Your task to perform on an android device: change notification settings in the gmail app Image 0: 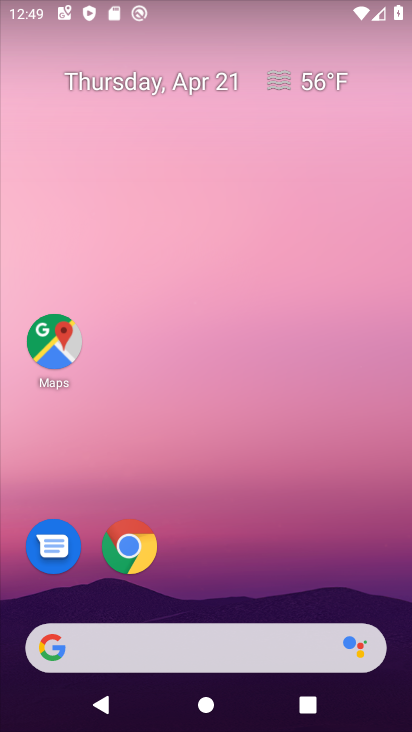
Step 0: drag from (221, 646) to (299, 234)
Your task to perform on an android device: change notification settings in the gmail app Image 1: 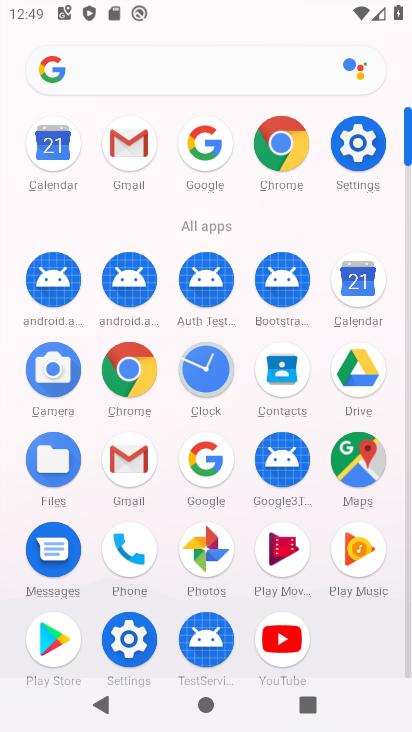
Step 1: click (128, 150)
Your task to perform on an android device: change notification settings in the gmail app Image 2: 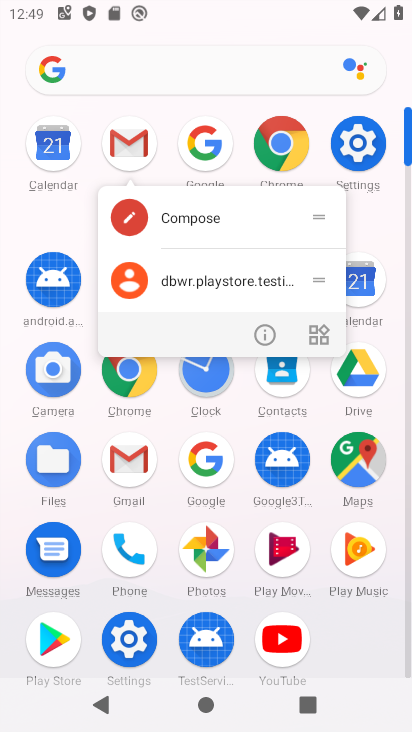
Step 2: click (123, 148)
Your task to perform on an android device: change notification settings in the gmail app Image 3: 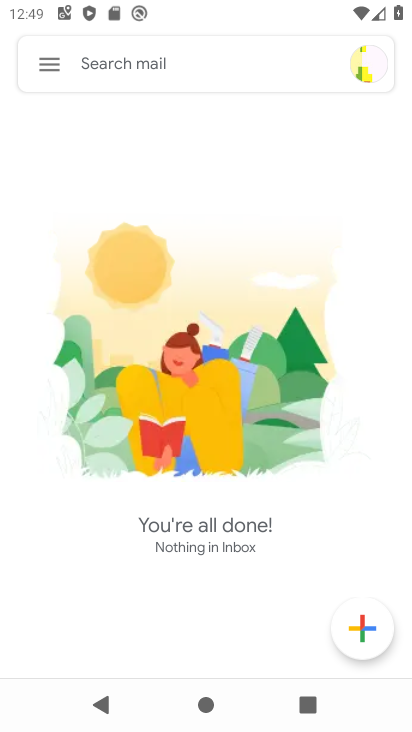
Step 3: click (47, 63)
Your task to perform on an android device: change notification settings in the gmail app Image 4: 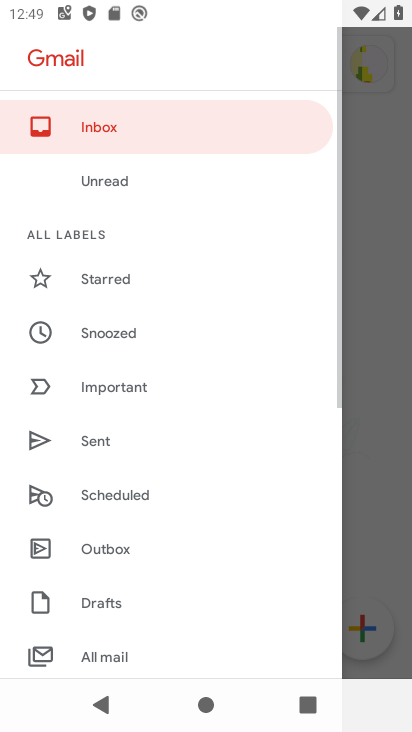
Step 4: drag from (157, 637) to (291, 193)
Your task to perform on an android device: change notification settings in the gmail app Image 5: 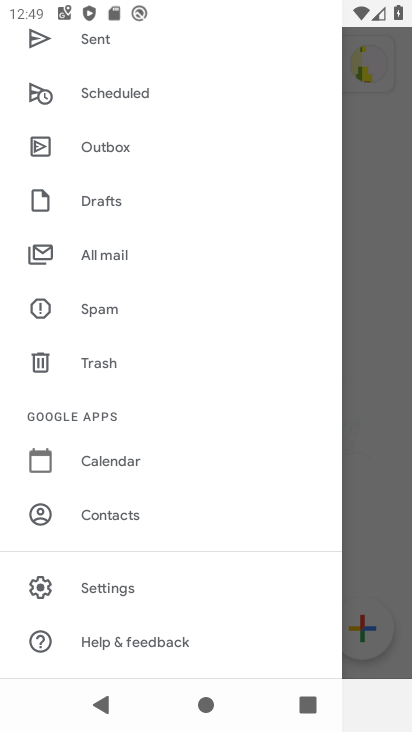
Step 5: click (124, 593)
Your task to perform on an android device: change notification settings in the gmail app Image 6: 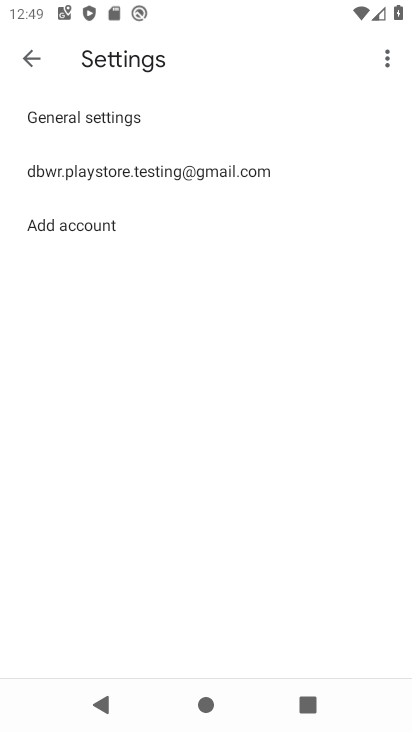
Step 6: click (203, 163)
Your task to perform on an android device: change notification settings in the gmail app Image 7: 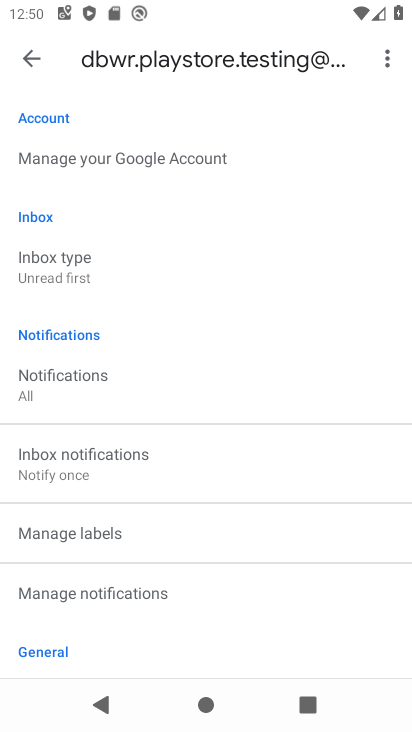
Step 7: click (79, 381)
Your task to perform on an android device: change notification settings in the gmail app Image 8: 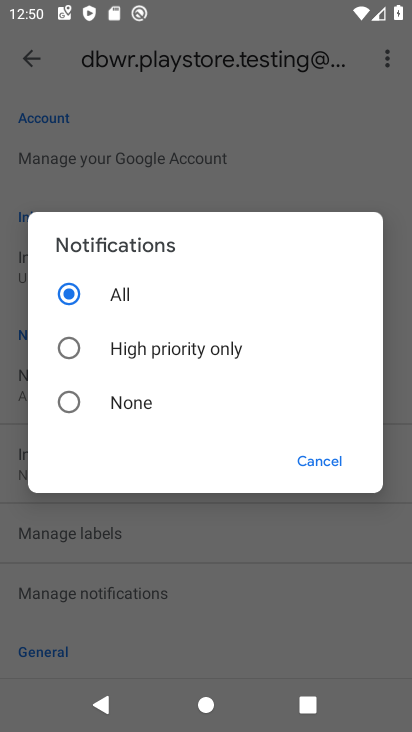
Step 8: click (66, 399)
Your task to perform on an android device: change notification settings in the gmail app Image 9: 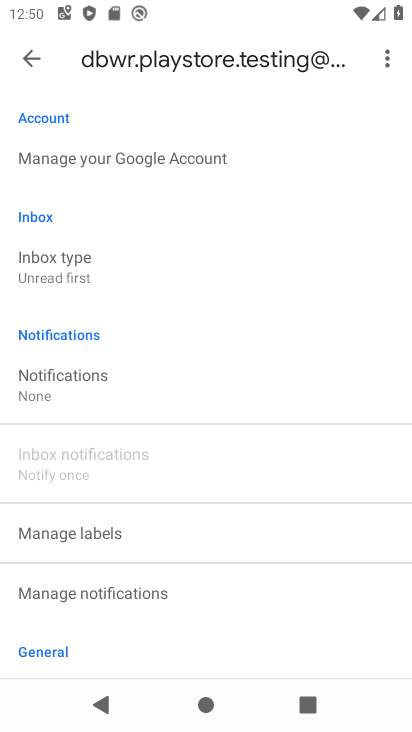
Step 9: click (27, 399)
Your task to perform on an android device: change notification settings in the gmail app Image 10: 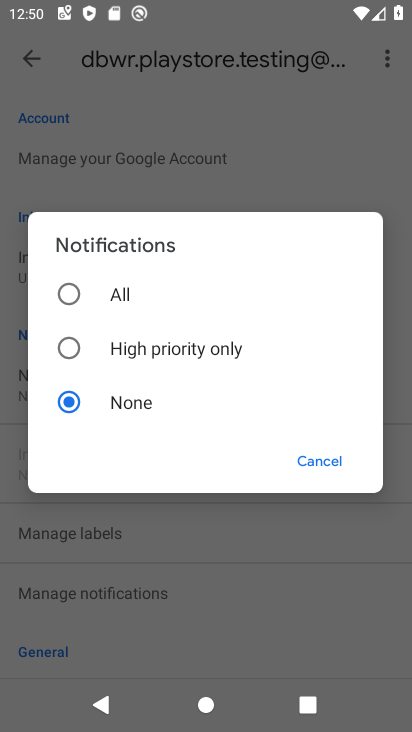
Step 10: click (70, 292)
Your task to perform on an android device: change notification settings in the gmail app Image 11: 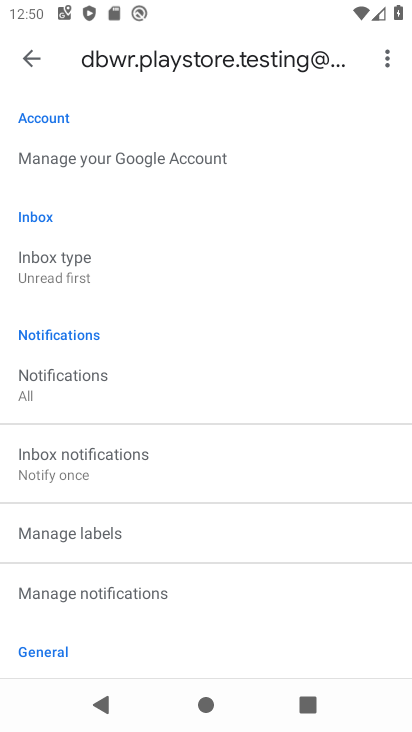
Step 11: task complete